Your task to perform on an android device: turn off location history Image 0: 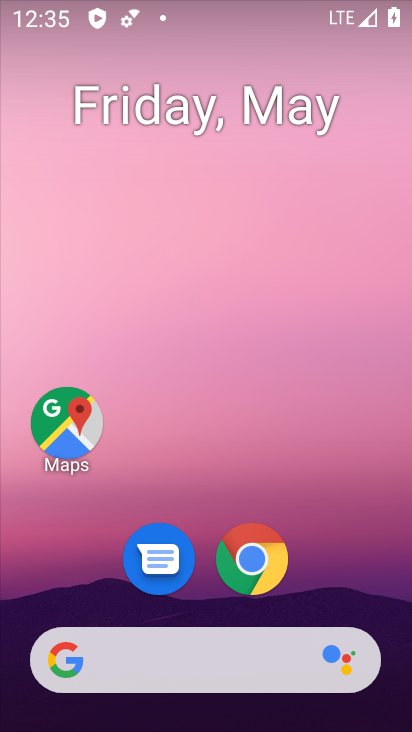
Step 0: drag from (355, 525) to (324, 90)
Your task to perform on an android device: turn off location history Image 1: 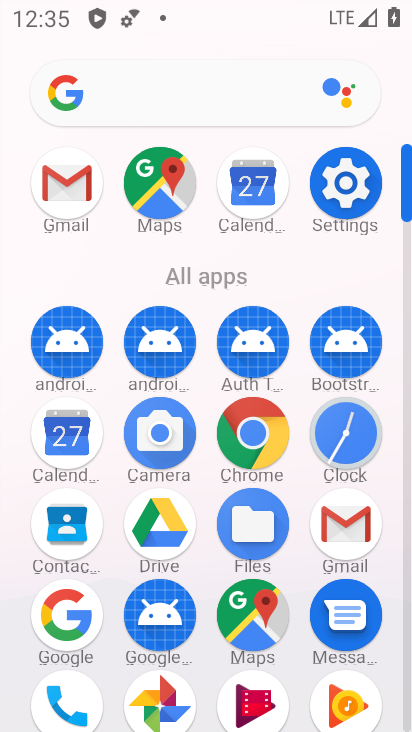
Step 1: click (342, 183)
Your task to perform on an android device: turn off location history Image 2: 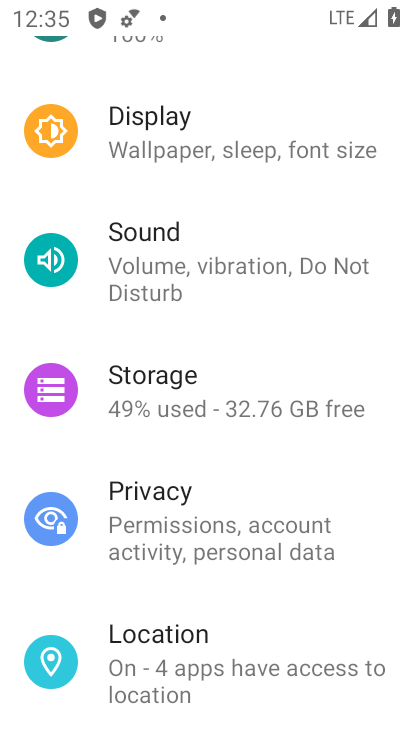
Step 2: drag from (334, 479) to (376, 80)
Your task to perform on an android device: turn off location history Image 3: 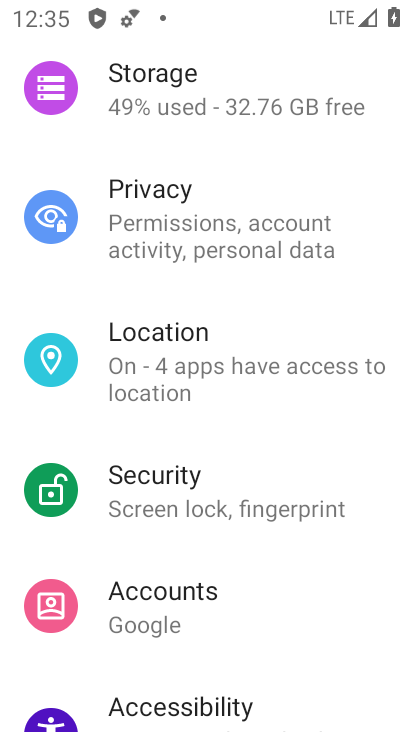
Step 3: click (210, 370)
Your task to perform on an android device: turn off location history Image 4: 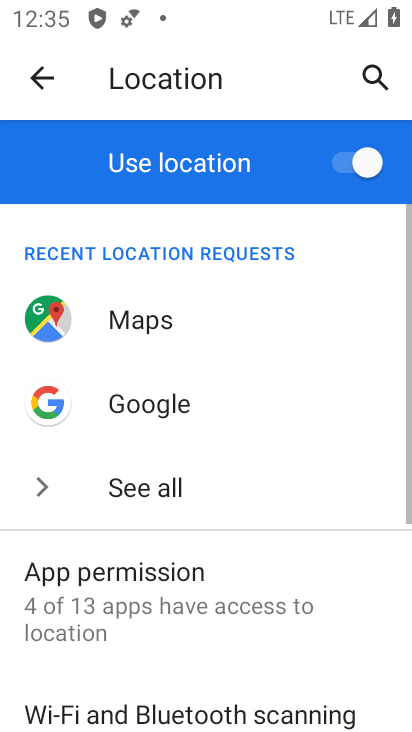
Step 4: drag from (244, 640) to (345, 191)
Your task to perform on an android device: turn off location history Image 5: 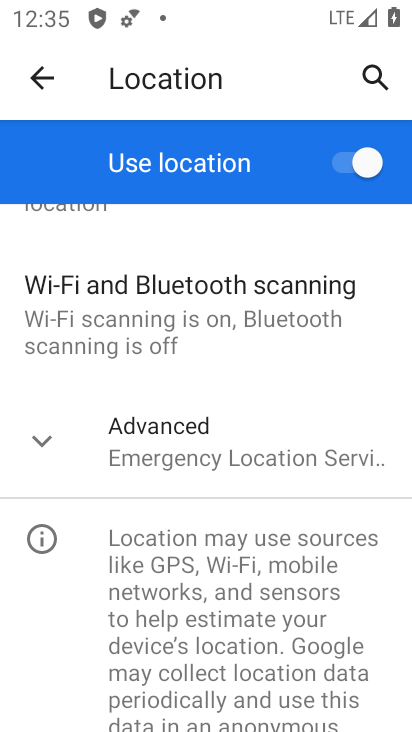
Step 5: click (298, 445)
Your task to perform on an android device: turn off location history Image 6: 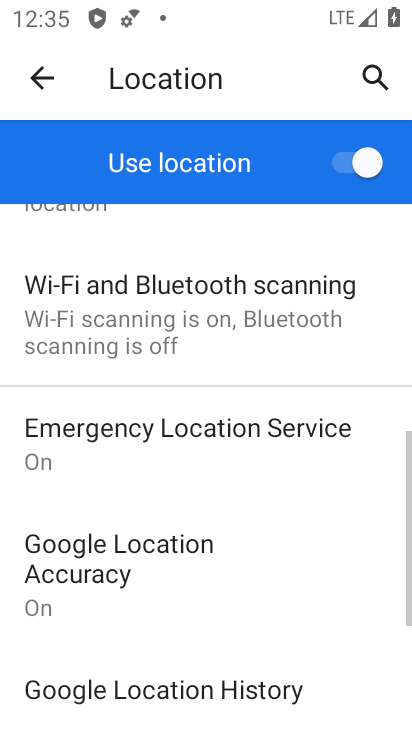
Step 6: drag from (314, 639) to (379, 253)
Your task to perform on an android device: turn off location history Image 7: 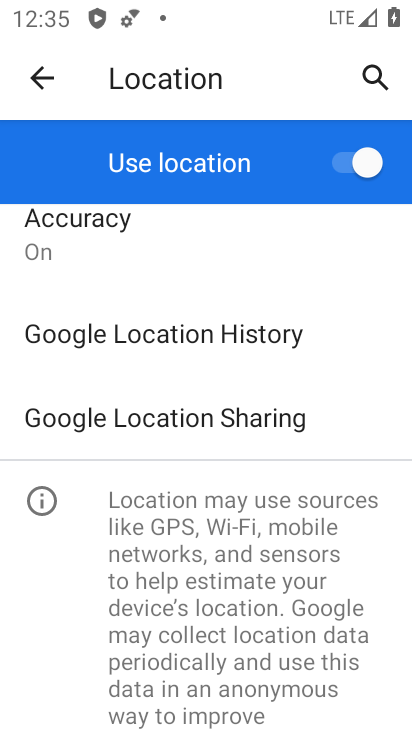
Step 7: click (276, 347)
Your task to perform on an android device: turn off location history Image 8: 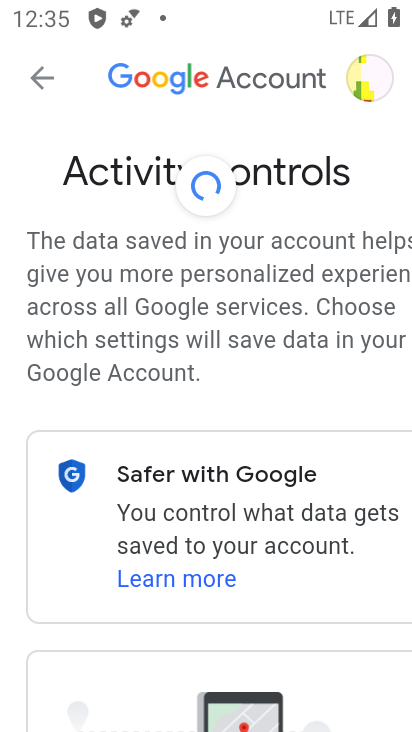
Step 8: drag from (310, 607) to (346, 94)
Your task to perform on an android device: turn off location history Image 9: 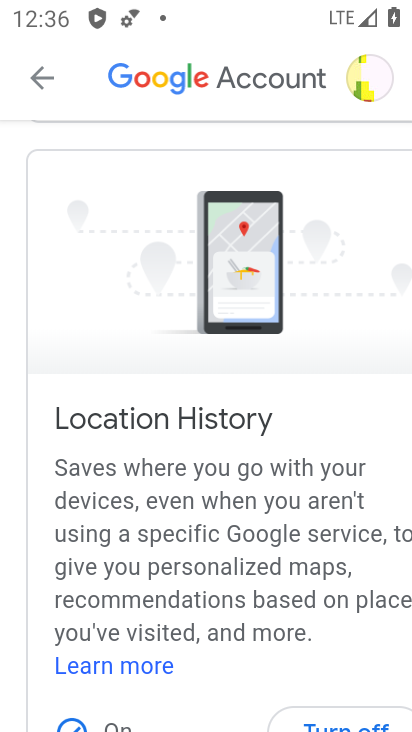
Step 9: drag from (296, 606) to (382, 198)
Your task to perform on an android device: turn off location history Image 10: 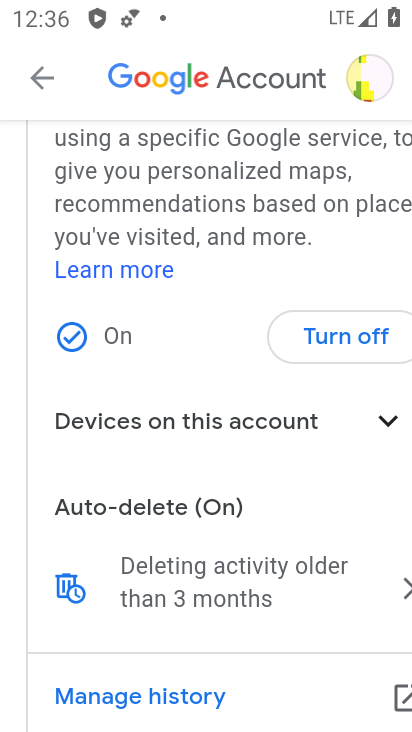
Step 10: click (348, 350)
Your task to perform on an android device: turn off location history Image 11: 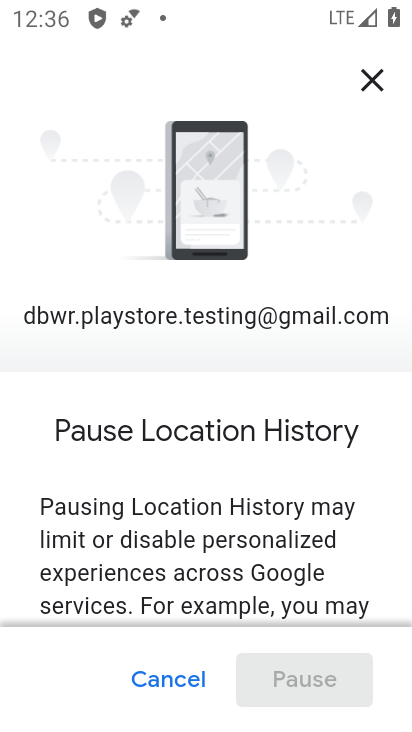
Step 11: drag from (338, 479) to (362, 189)
Your task to perform on an android device: turn off location history Image 12: 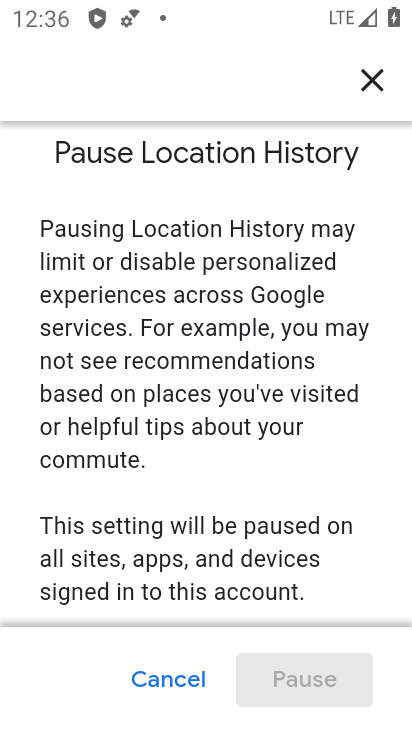
Step 12: drag from (329, 583) to (276, 140)
Your task to perform on an android device: turn off location history Image 13: 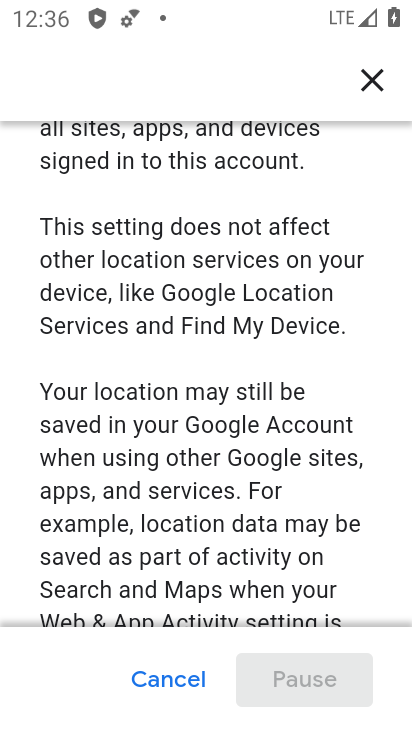
Step 13: drag from (314, 604) to (300, 181)
Your task to perform on an android device: turn off location history Image 14: 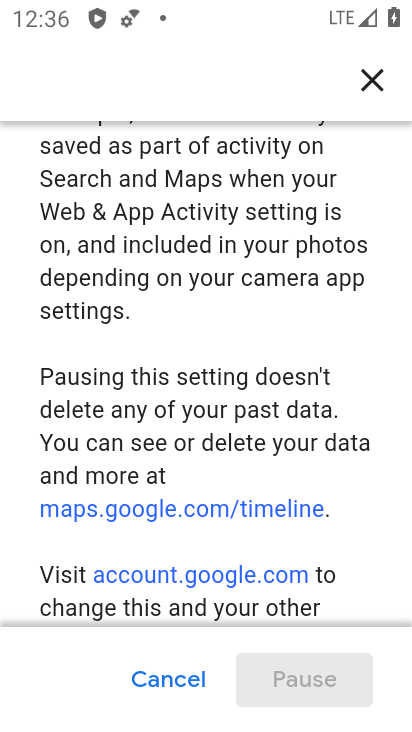
Step 14: drag from (317, 581) to (286, 243)
Your task to perform on an android device: turn off location history Image 15: 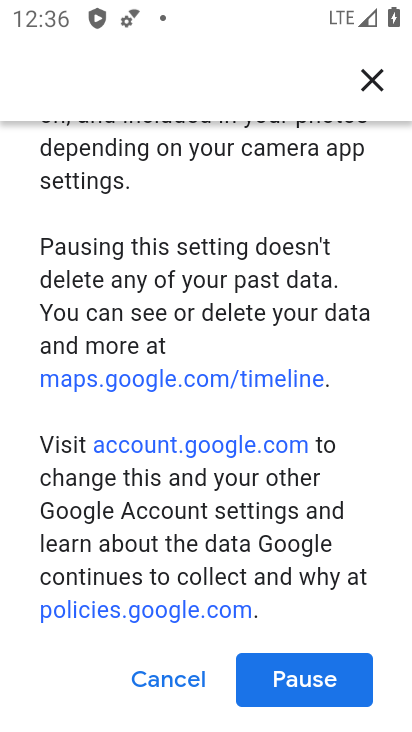
Step 15: click (307, 690)
Your task to perform on an android device: turn off location history Image 16: 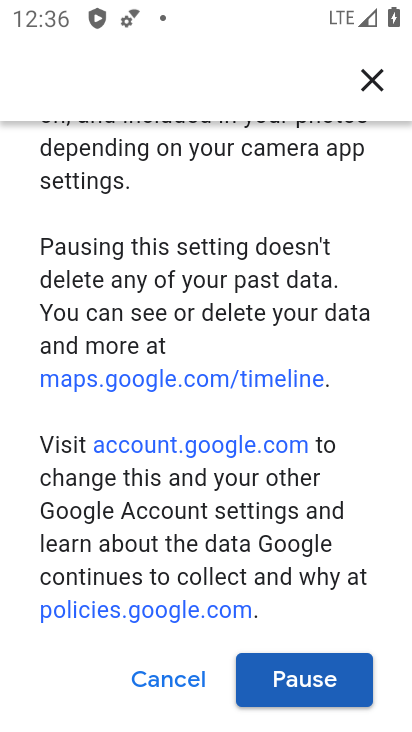
Step 16: click (308, 690)
Your task to perform on an android device: turn off location history Image 17: 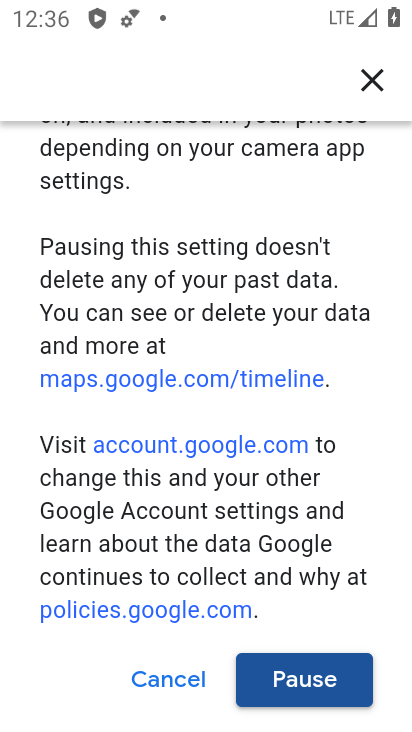
Step 17: click (308, 690)
Your task to perform on an android device: turn off location history Image 18: 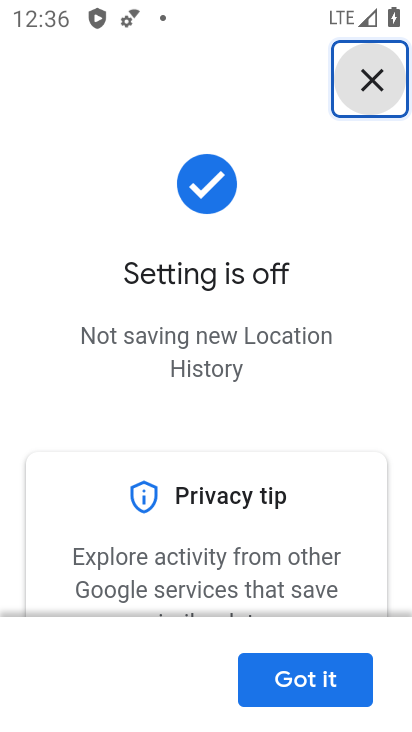
Step 18: task complete